Your task to perform on an android device: turn off location history Image 0: 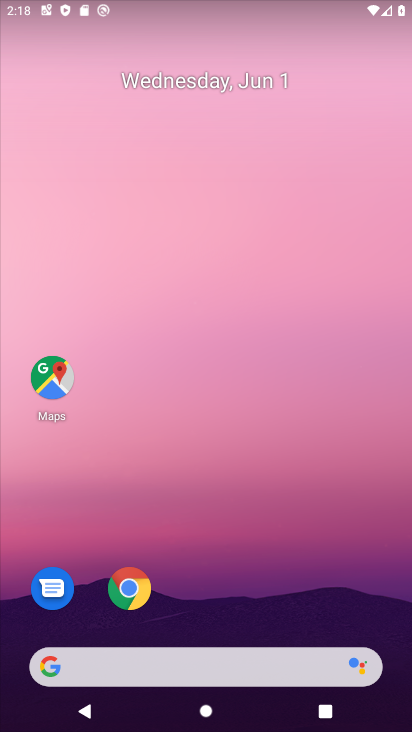
Step 0: drag from (215, 413) to (237, 72)
Your task to perform on an android device: turn off location history Image 1: 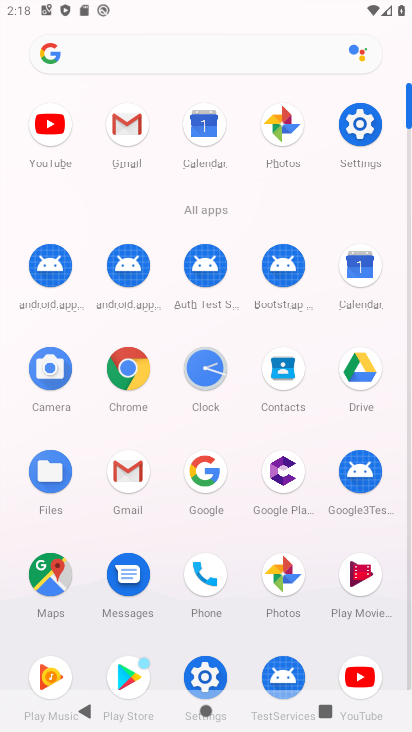
Step 1: click (359, 108)
Your task to perform on an android device: turn off location history Image 2: 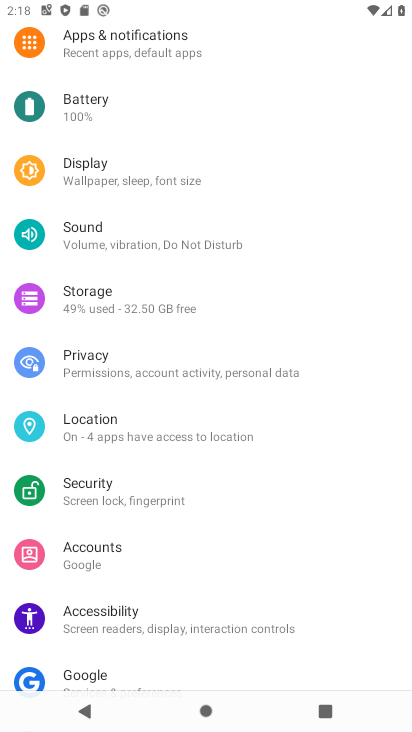
Step 2: click (104, 417)
Your task to perform on an android device: turn off location history Image 3: 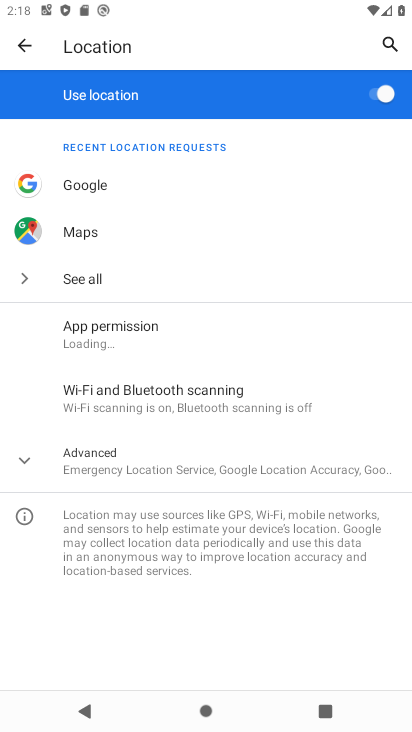
Step 3: click (135, 457)
Your task to perform on an android device: turn off location history Image 4: 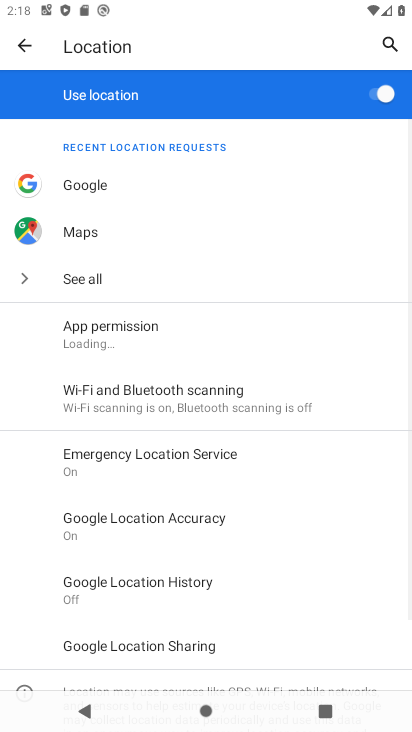
Step 4: click (162, 579)
Your task to perform on an android device: turn off location history Image 5: 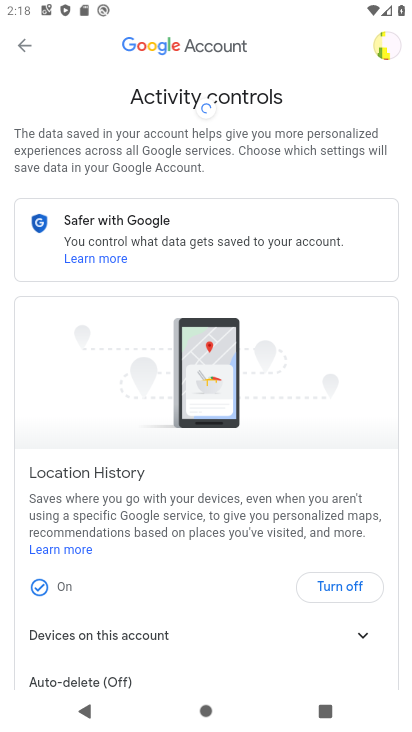
Step 5: click (340, 584)
Your task to perform on an android device: turn off location history Image 6: 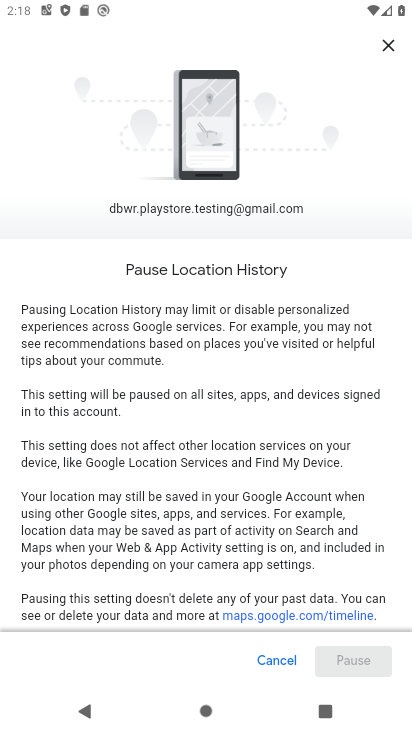
Step 6: drag from (283, 594) to (336, 102)
Your task to perform on an android device: turn off location history Image 7: 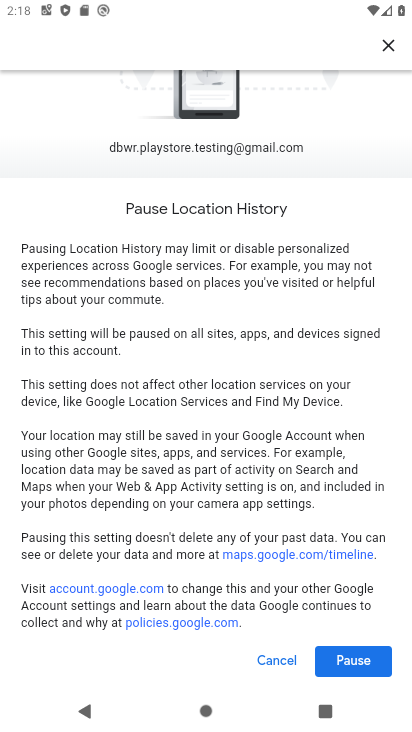
Step 7: click (359, 658)
Your task to perform on an android device: turn off location history Image 8: 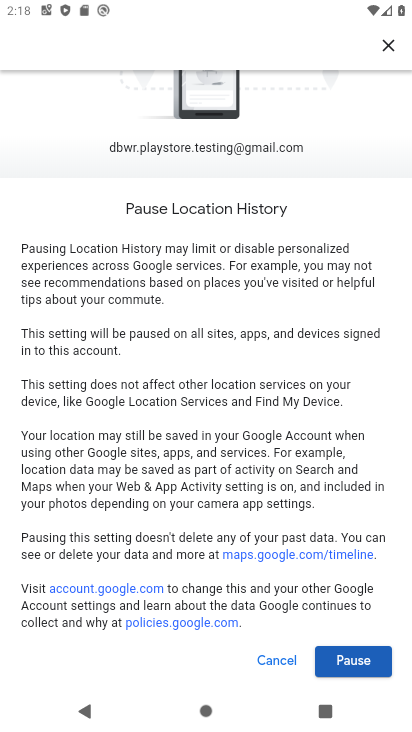
Step 8: click (350, 661)
Your task to perform on an android device: turn off location history Image 9: 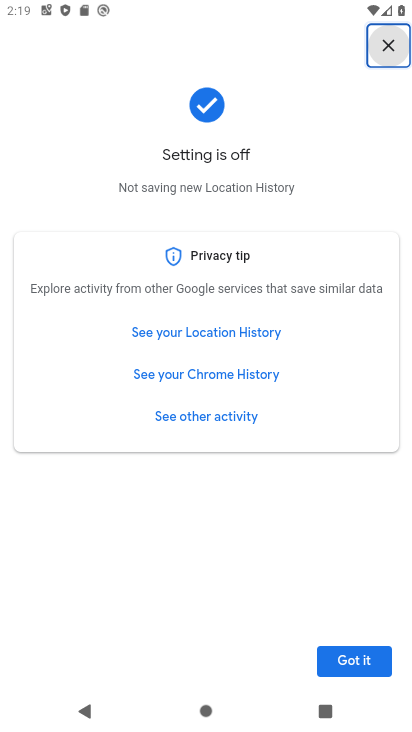
Step 9: task complete